Your task to perform on an android device: Go to Google maps Image 0: 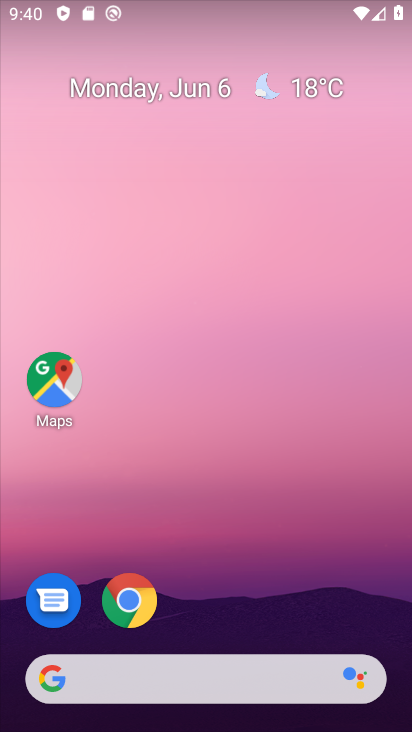
Step 0: drag from (246, 589) to (209, 32)
Your task to perform on an android device: Go to Google maps Image 1: 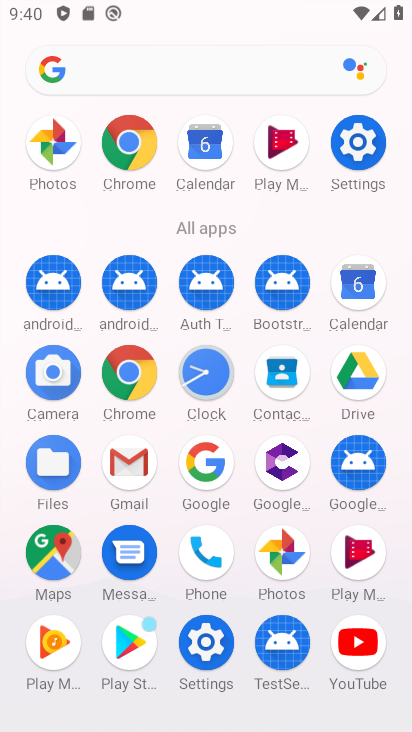
Step 1: click (51, 541)
Your task to perform on an android device: Go to Google maps Image 2: 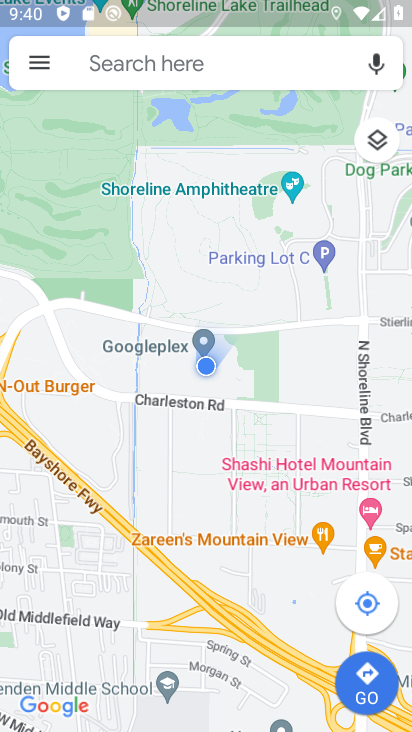
Step 2: task complete